Your task to perform on an android device: open app "Move to iOS" (install if not already installed) Image 0: 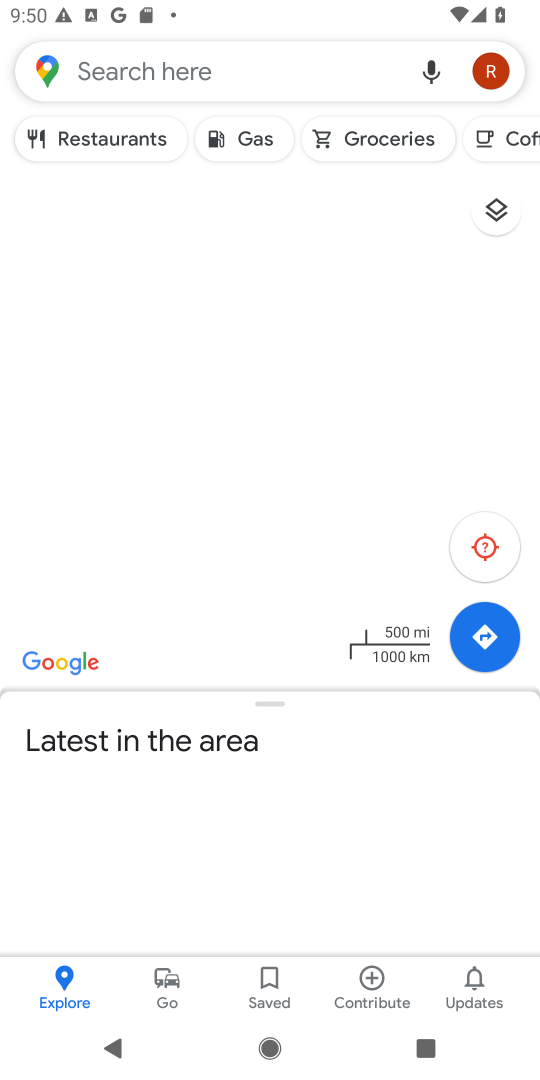
Step 0: press home button
Your task to perform on an android device: open app "Move to iOS" (install if not already installed) Image 1: 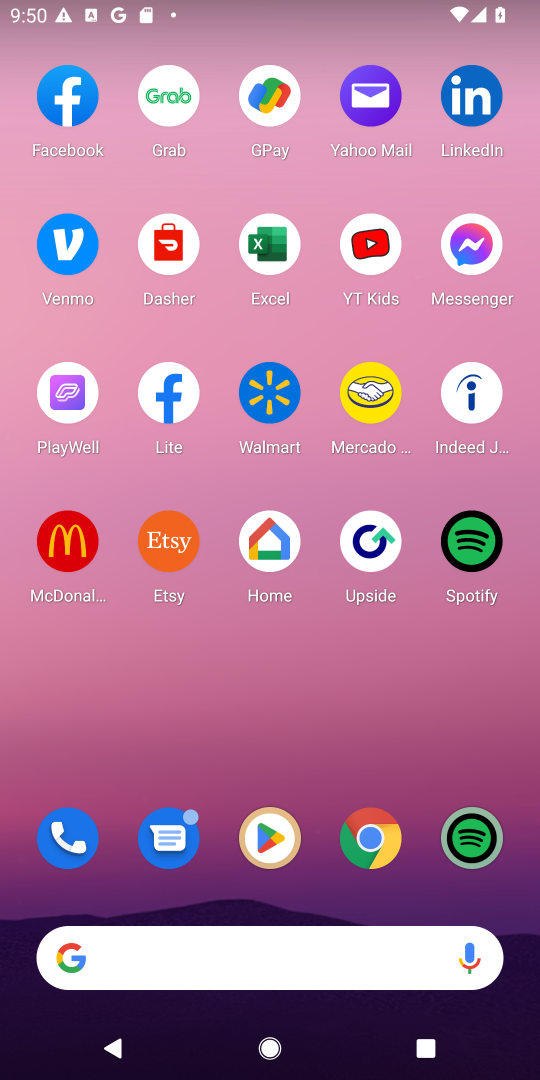
Step 1: click (271, 849)
Your task to perform on an android device: open app "Move to iOS" (install if not already installed) Image 2: 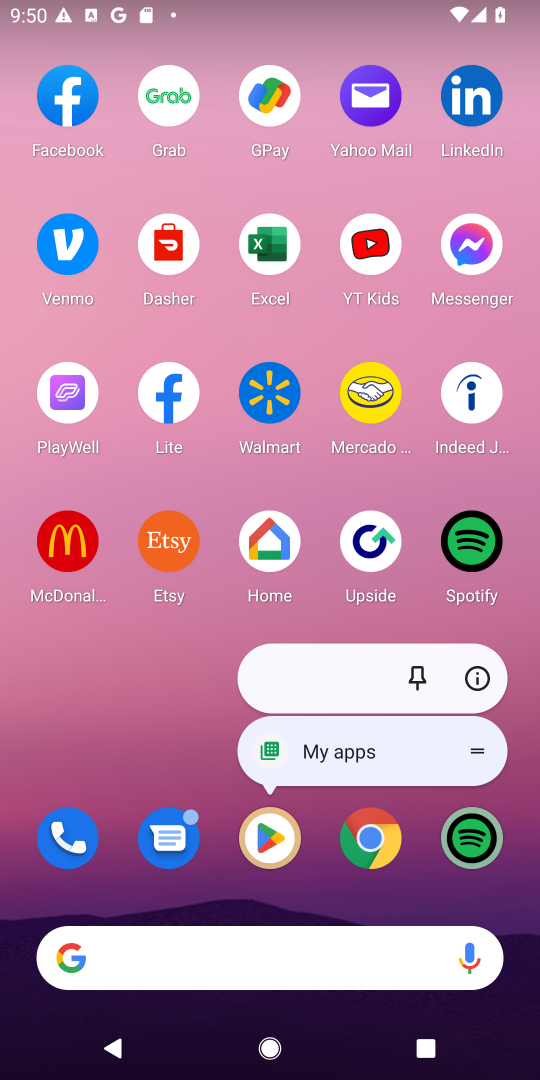
Step 2: click (271, 849)
Your task to perform on an android device: open app "Move to iOS" (install if not already installed) Image 3: 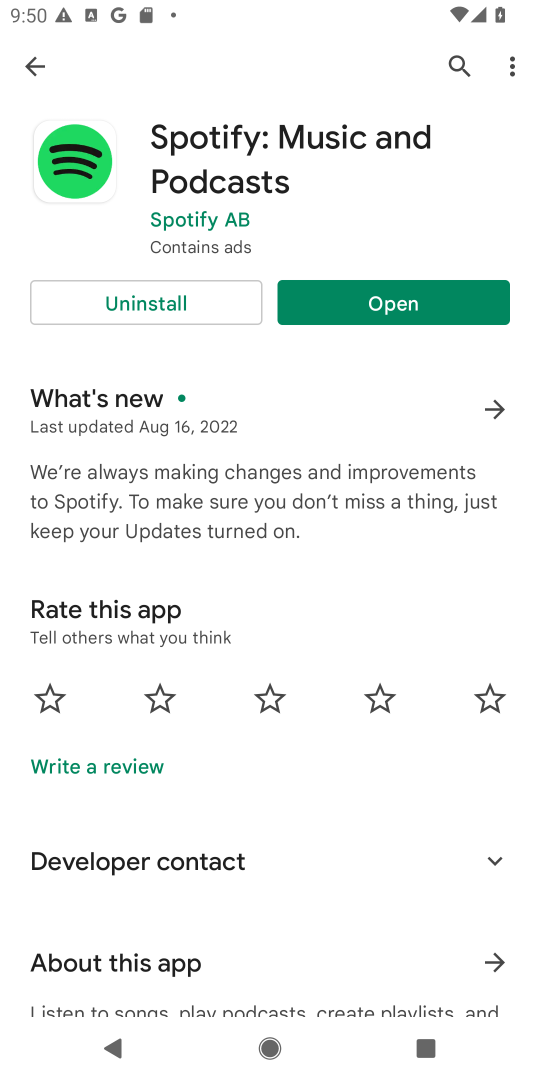
Step 3: click (450, 73)
Your task to perform on an android device: open app "Move to iOS" (install if not already installed) Image 4: 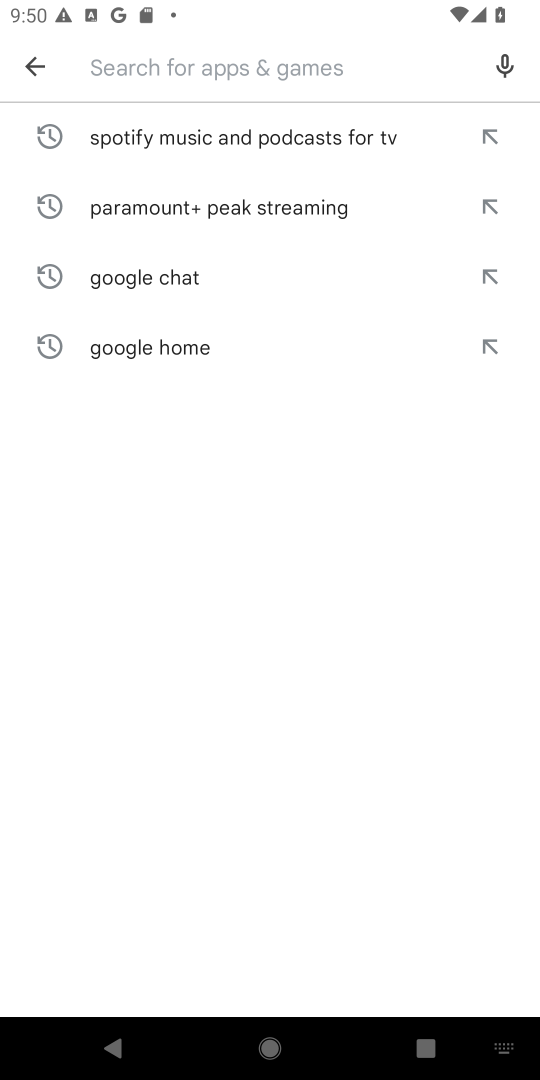
Step 4: type "Move to iOS"
Your task to perform on an android device: open app "Move to iOS" (install if not already installed) Image 5: 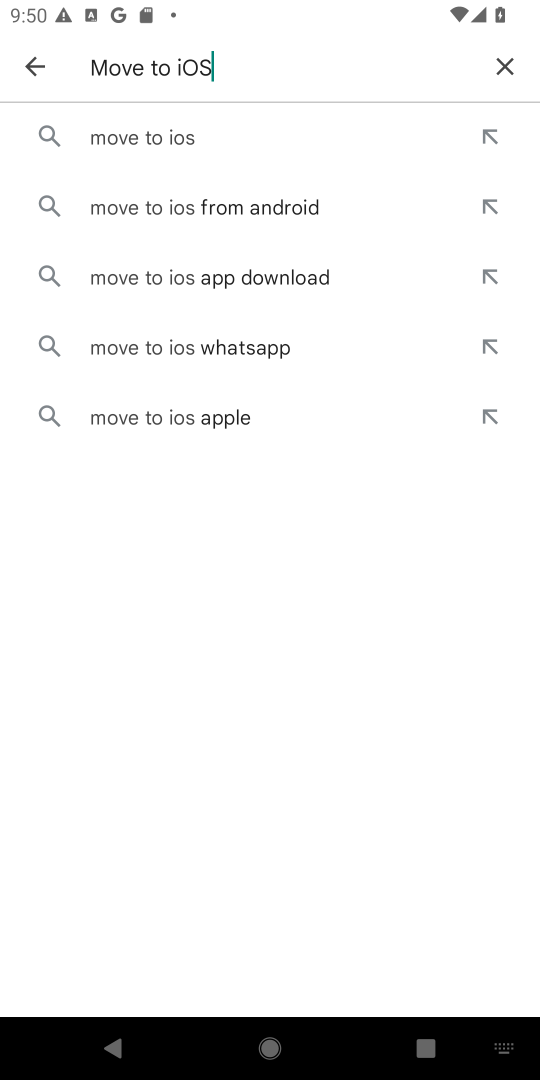
Step 5: click (196, 152)
Your task to perform on an android device: open app "Move to iOS" (install if not already installed) Image 6: 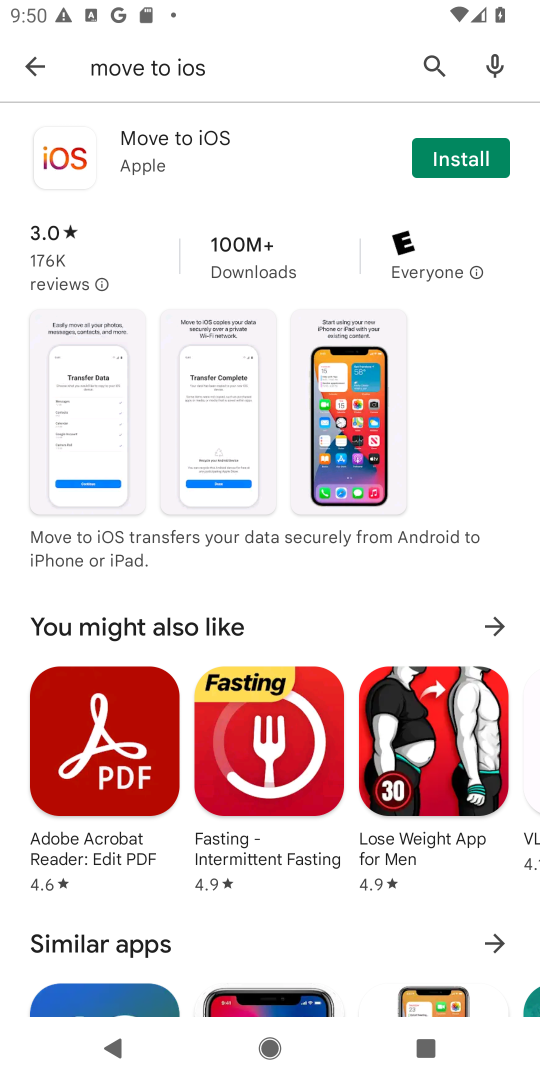
Step 6: click (469, 160)
Your task to perform on an android device: open app "Move to iOS" (install if not already installed) Image 7: 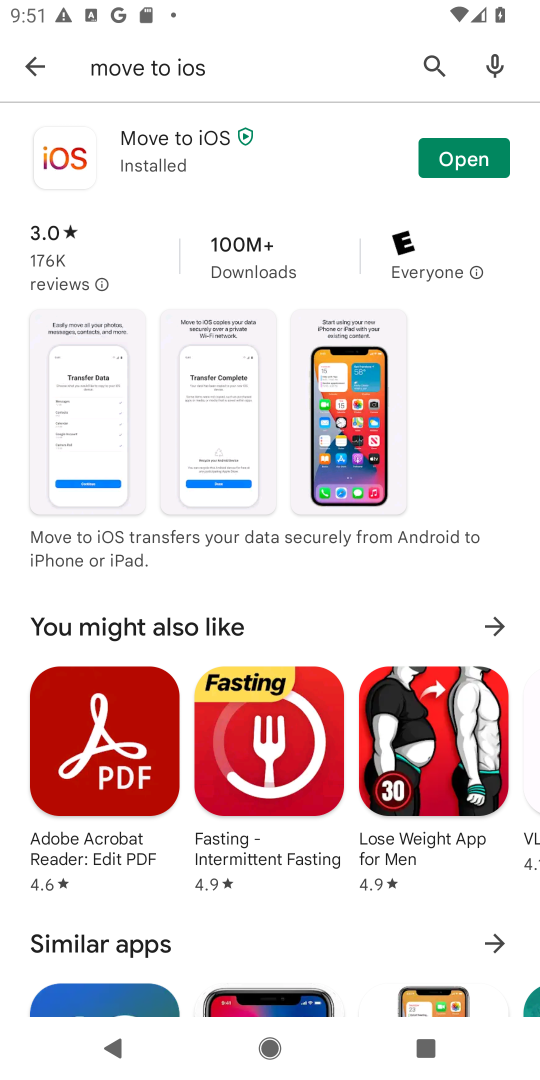
Step 7: click (469, 160)
Your task to perform on an android device: open app "Move to iOS" (install if not already installed) Image 8: 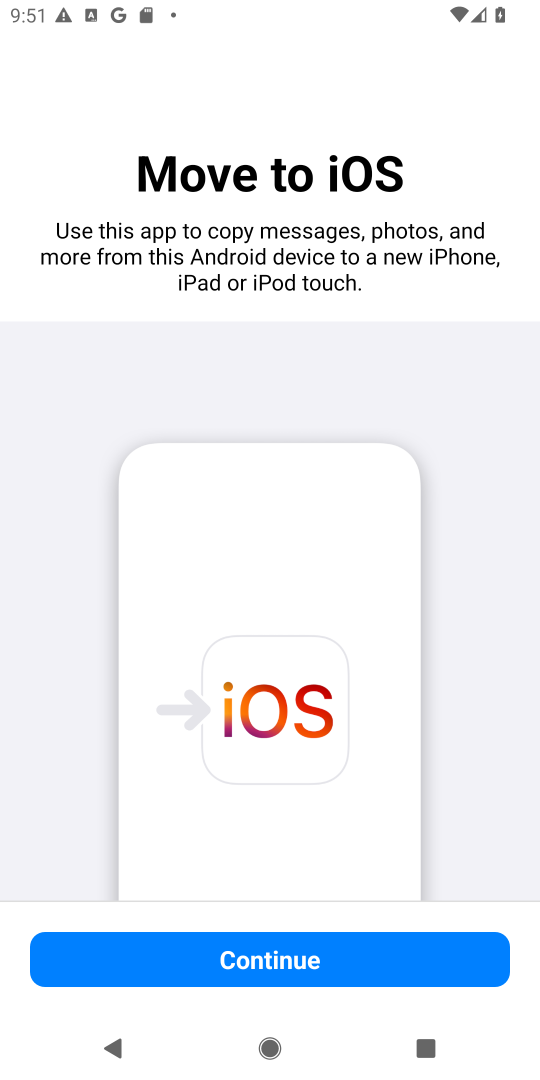
Step 8: task complete